Your task to perform on an android device: make emails show in primary in the gmail app Image 0: 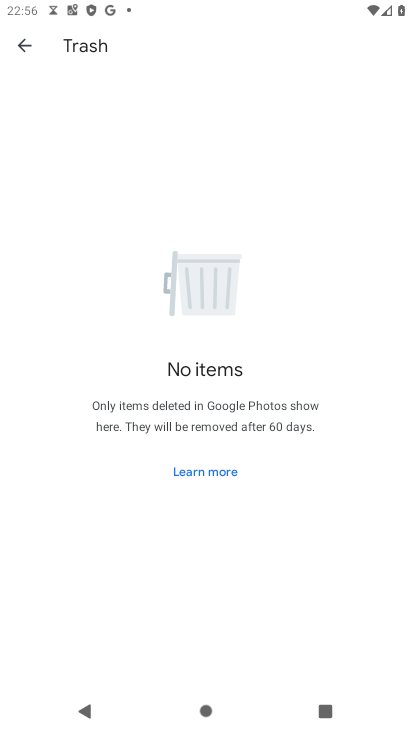
Step 0: press home button
Your task to perform on an android device: make emails show in primary in the gmail app Image 1: 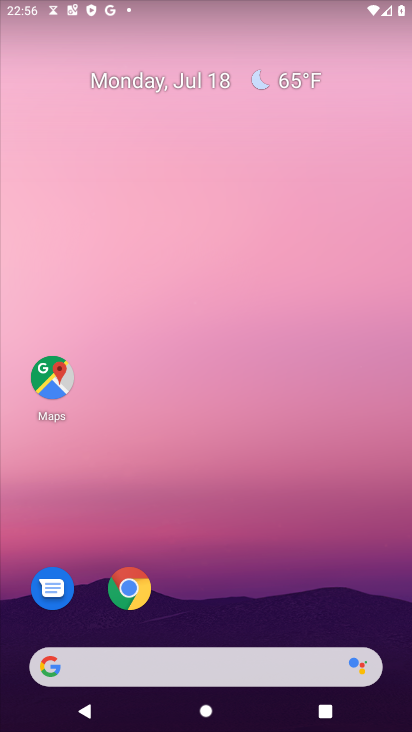
Step 1: drag from (227, 656) to (283, 48)
Your task to perform on an android device: make emails show in primary in the gmail app Image 2: 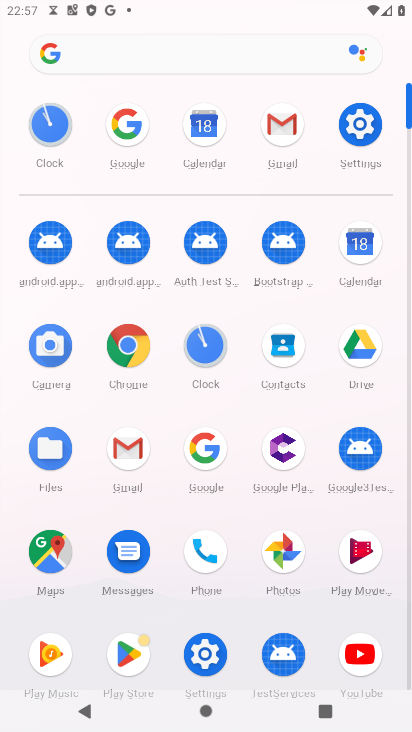
Step 2: click (280, 121)
Your task to perform on an android device: make emails show in primary in the gmail app Image 3: 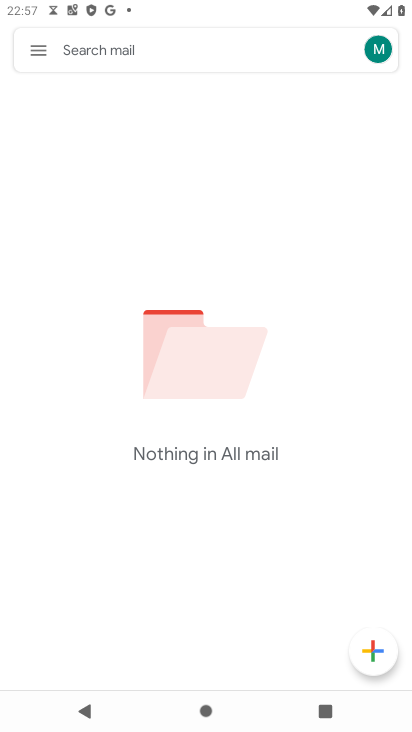
Step 3: click (31, 52)
Your task to perform on an android device: make emails show in primary in the gmail app Image 4: 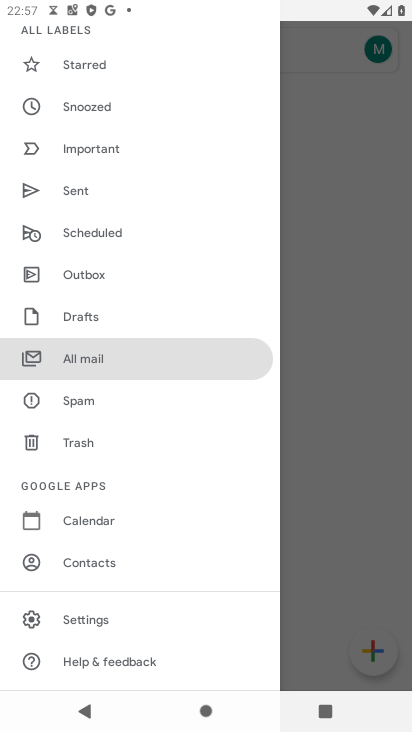
Step 4: drag from (90, 104) to (92, 292)
Your task to perform on an android device: make emails show in primary in the gmail app Image 5: 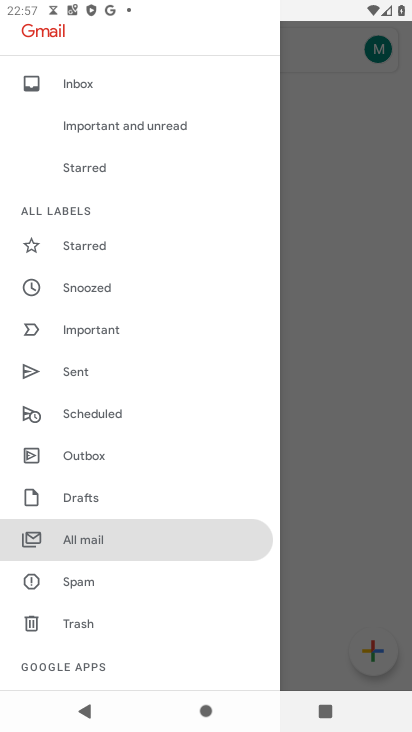
Step 5: drag from (108, 588) to (234, 333)
Your task to perform on an android device: make emails show in primary in the gmail app Image 6: 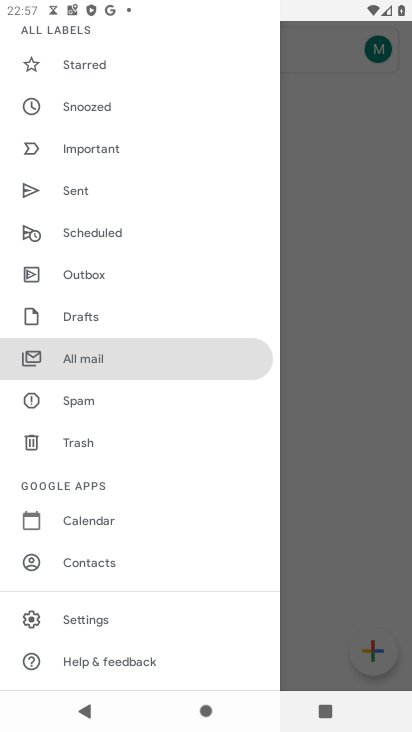
Step 6: click (97, 621)
Your task to perform on an android device: make emails show in primary in the gmail app Image 7: 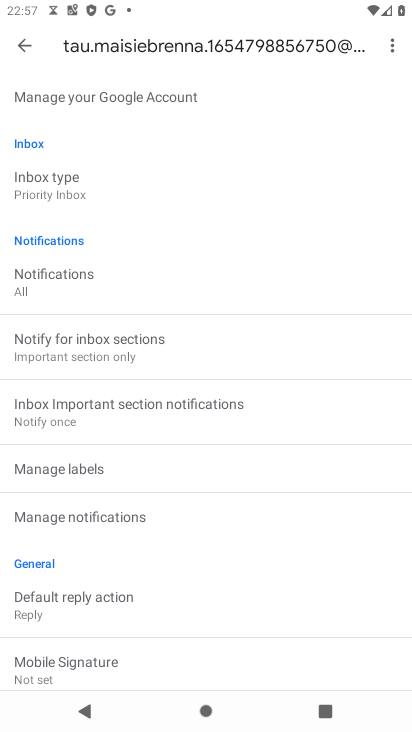
Step 7: click (76, 194)
Your task to perform on an android device: make emails show in primary in the gmail app Image 8: 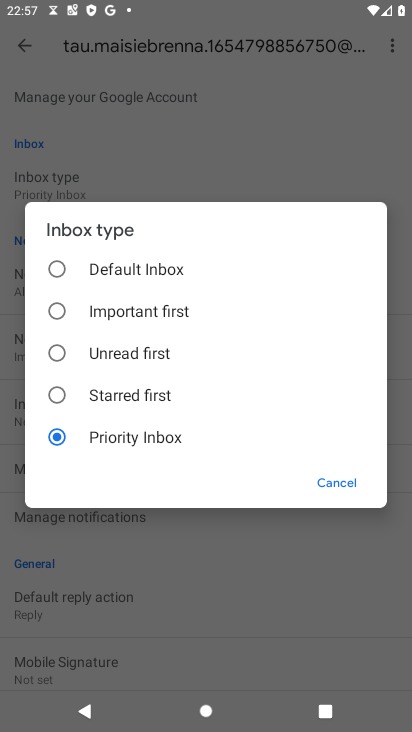
Step 8: click (60, 265)
Your task to perform on an android device: make emails show in primary in the gmail app Image 9: 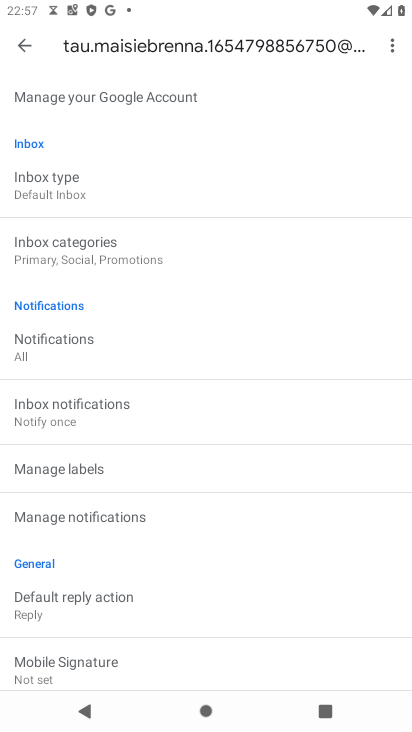
Step 9: click (77, 258)
Your task to perform on an android device: make emails show in primary in the gmail app Image 10: 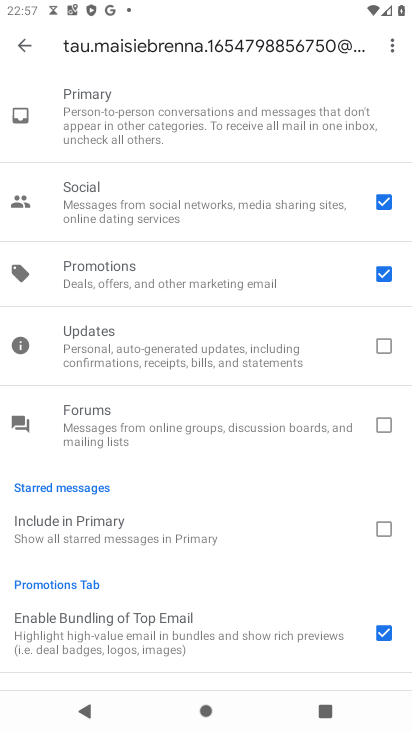
Step 10: click (382, 208)
Your task to perform on an android device: make emails show in primary in the gmail app Image 11: 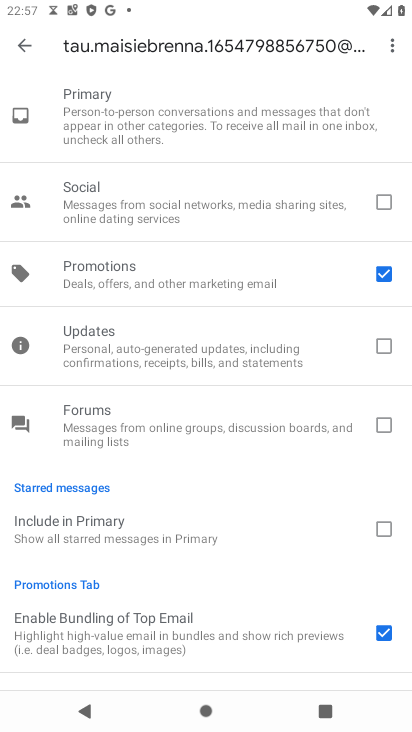
Step 11: click (388, 275)
Your task to perform on an android device: make emails show in primary in the gmail app Image 12: 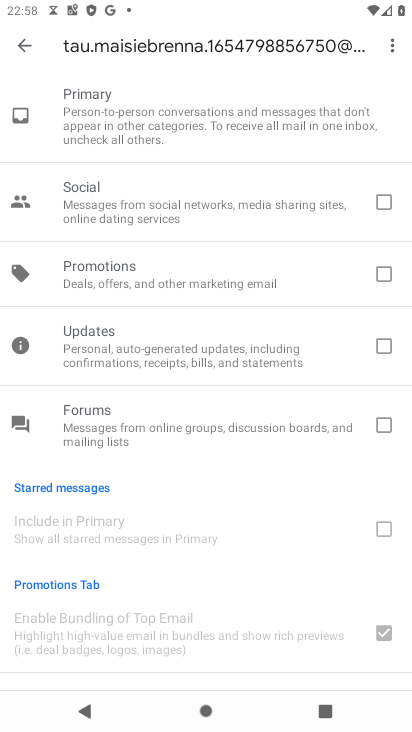
Step 12: task complete